Your task to perform on an android device: Go to notification settings Image 0: 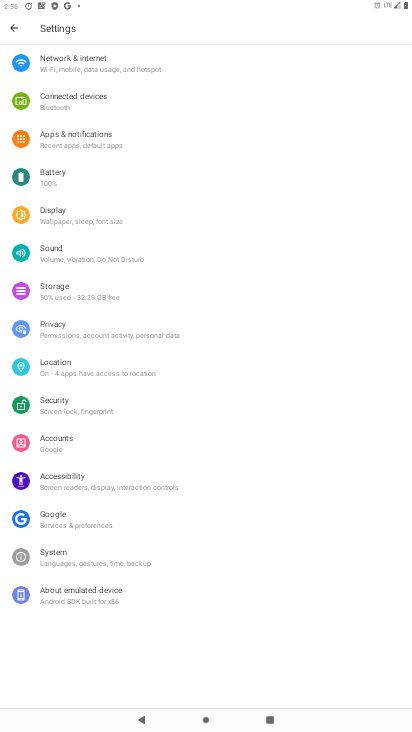
Step 0: click (80, 142)
Your task to perform on an android device: Go to notification settings Image 1: 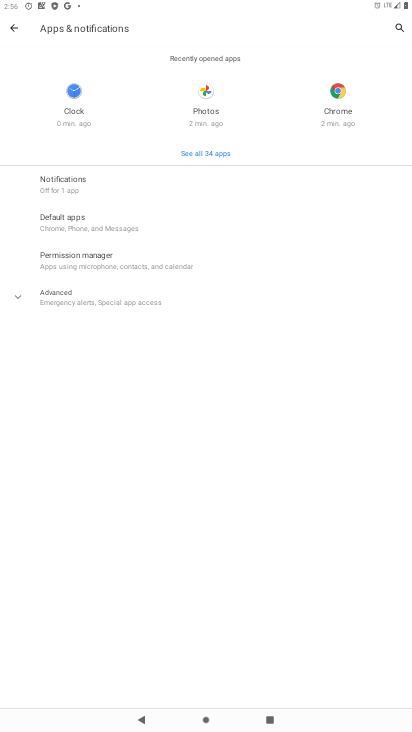
Step 1: click (80, 174)
Your task to perform on an android device: Go to notification settings Image 2: 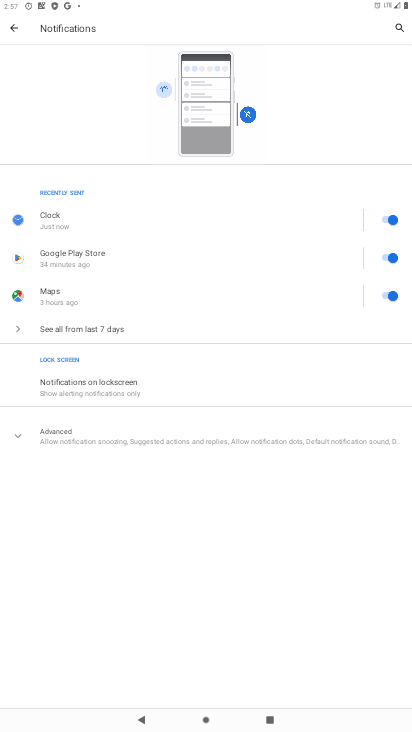
Step 2: task complete